Your task to perform on an android device: What's the weather going to be this weekend? Image 0: 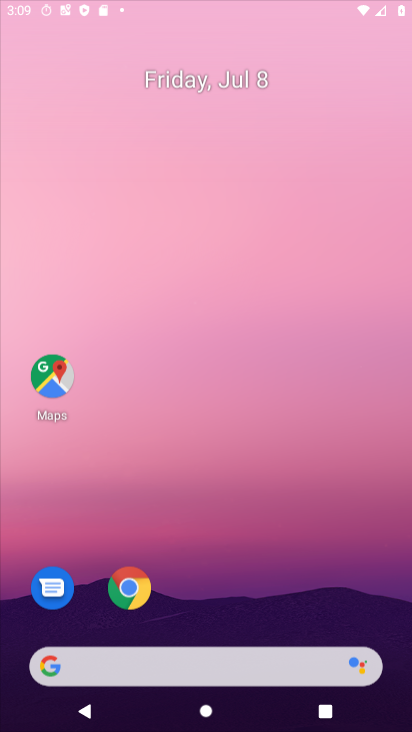
Step 0: press home button
Your task to perform on an android device: What's the weather going to be this weekend? Image 1: 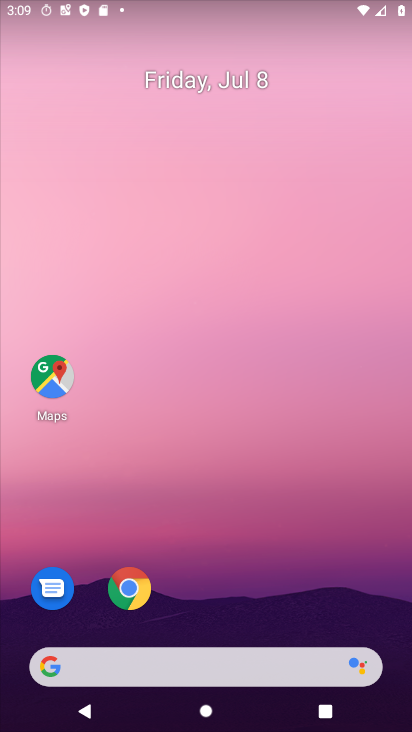
Step 1: click (51, 670)
Your task to perform on an android device: What's the weather going to be this weekend? Image 2: 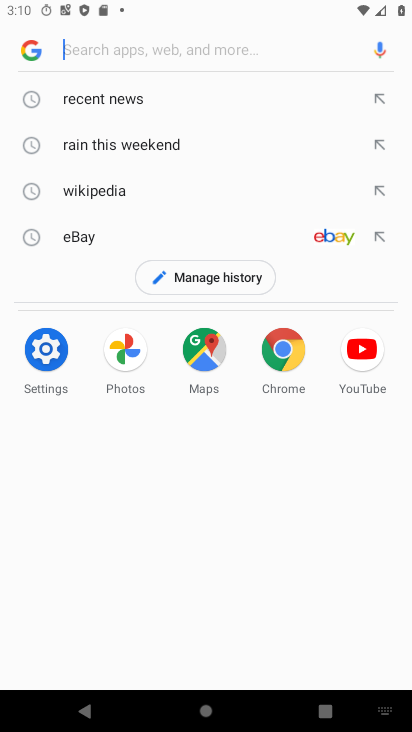
Step 2: type "weather this weekend"
Your task to perform on an android device: What's the weather going to be this weekend? Image 3: 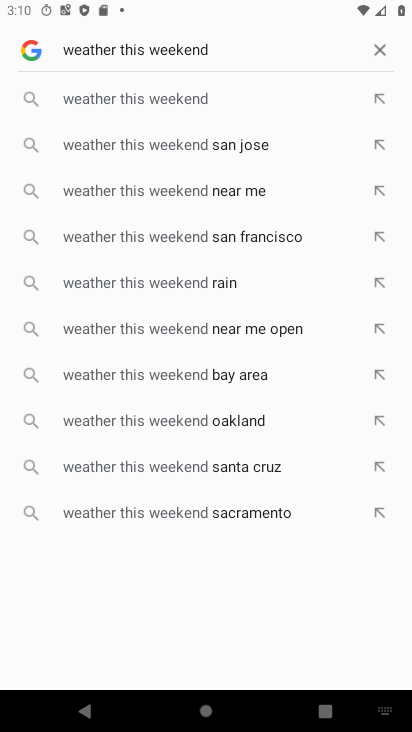
Step 3: click (136, 102)
Your task to perform on an android device: What's the weather going to be this weekend? Image 4: 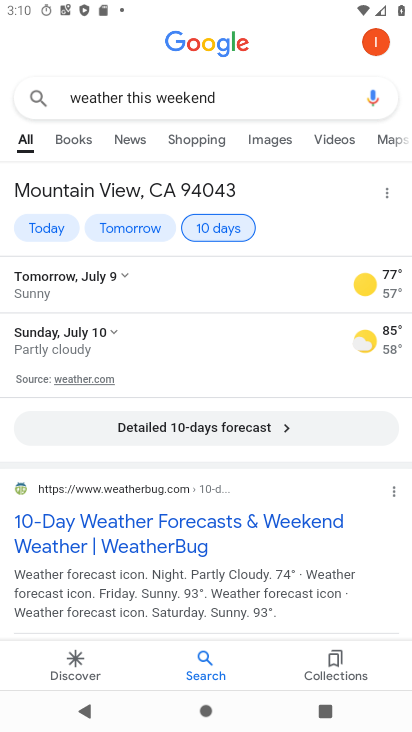
Step 4: task complete